Your task to perform on an android device: Search for flights from NYC to Buenos aires Image 0: 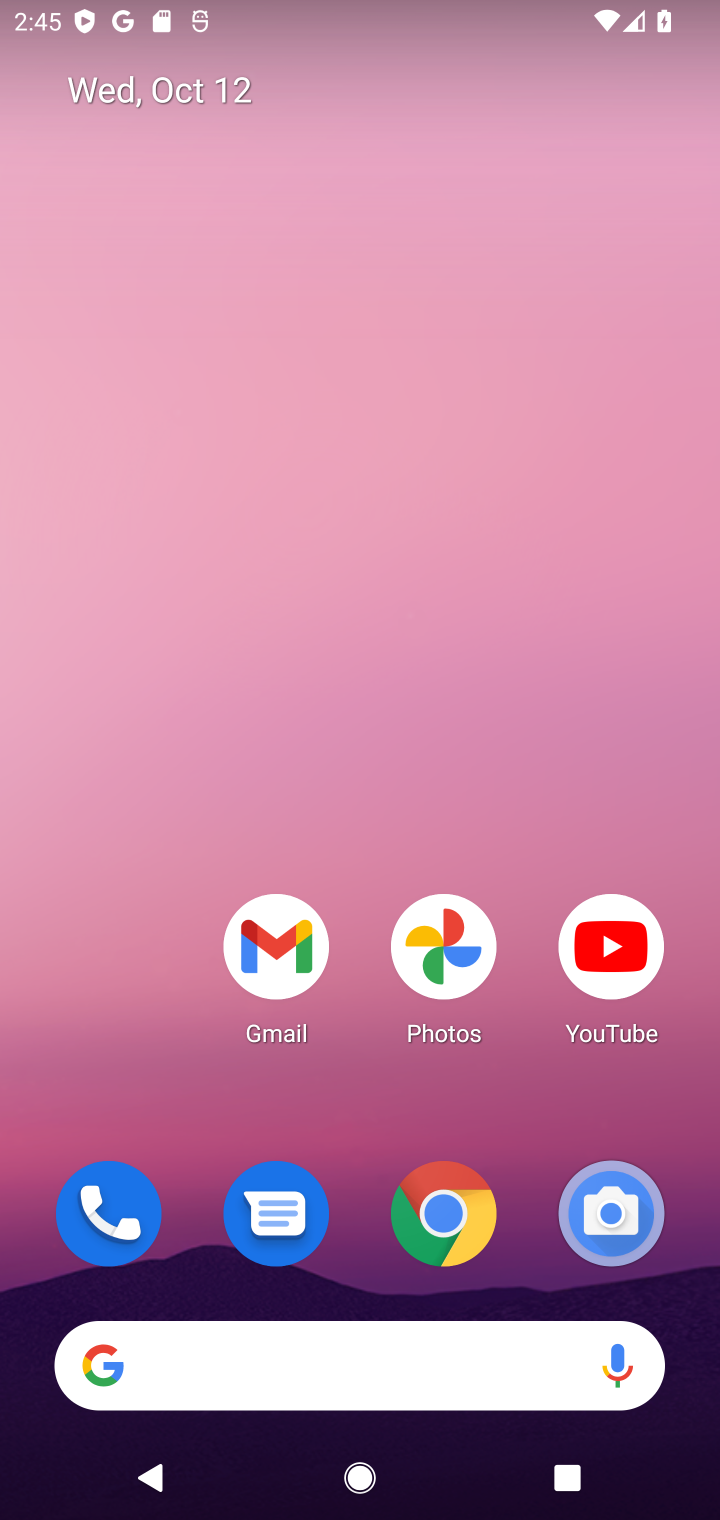
Step 0: click (176, 1377)
Your task to perform on an android device: Search for flights from NYC to Buenos aires Image 1: 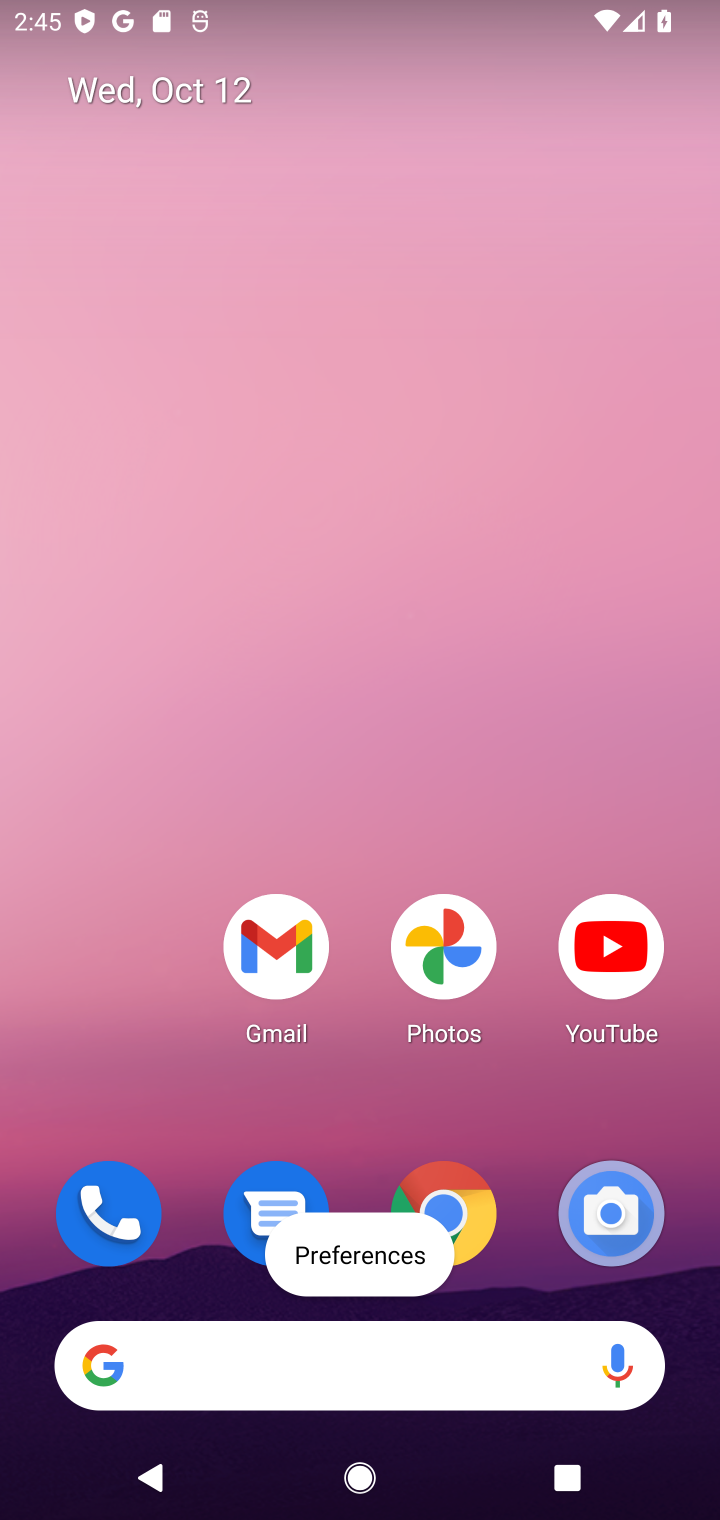
Step 1: click (192, 1387)
Your task to perform on an android device: Search for flights from NYC to Buenos aires Image 2: 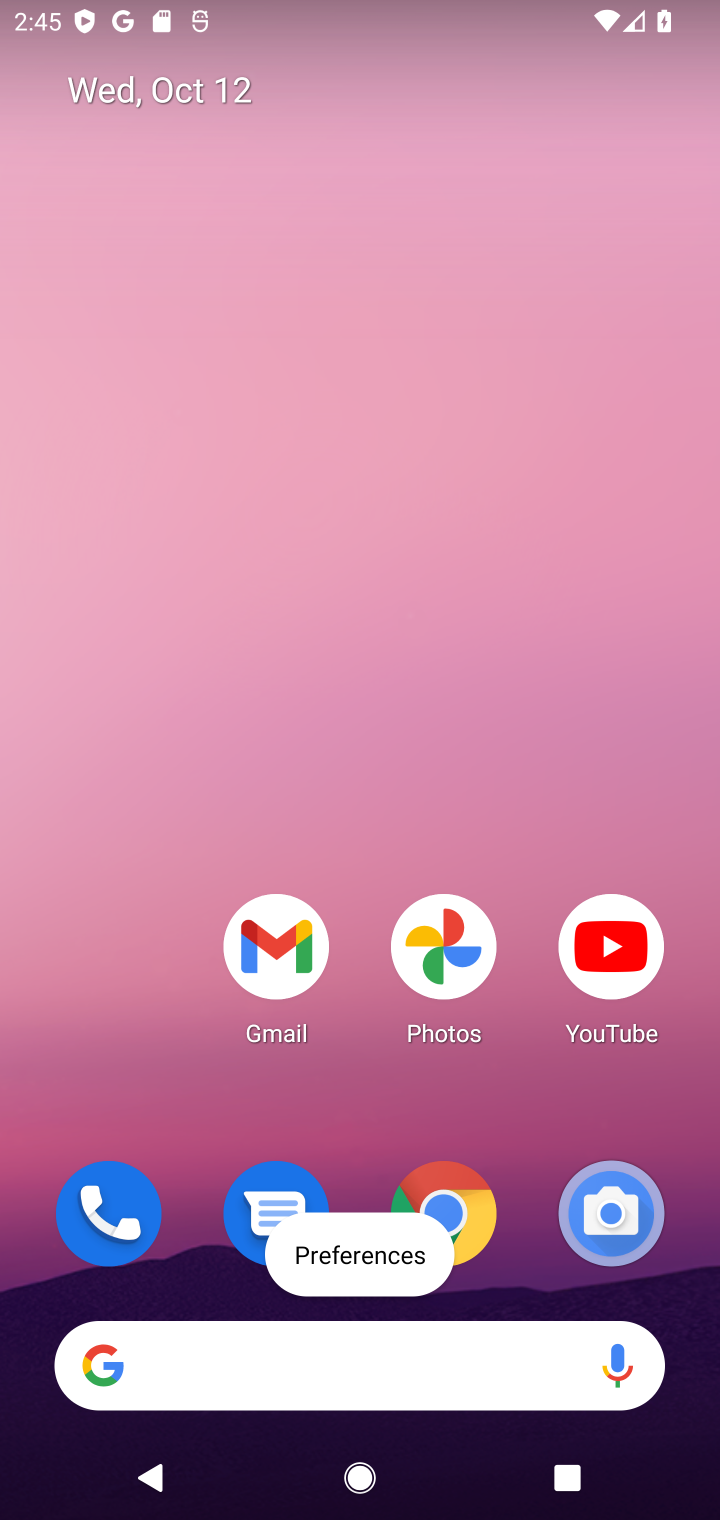
Step 2: click (269, 1348)
Your task to perform on an android device: Search for flights from NYC to Buenos aires Image 3: 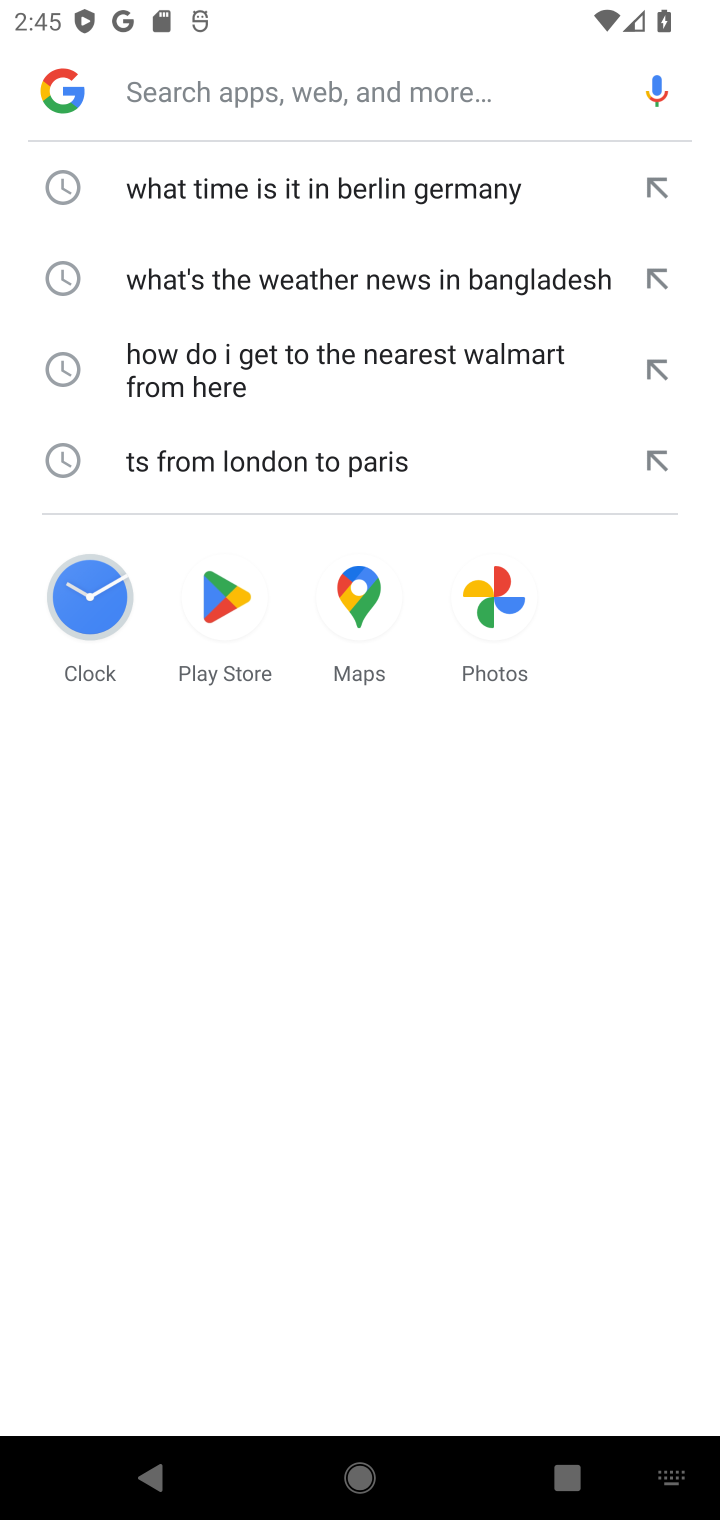
Step 3: click (211, 112)
Your task to perform on an android device: Search for flights from NYC to Buenos aires Image 4: 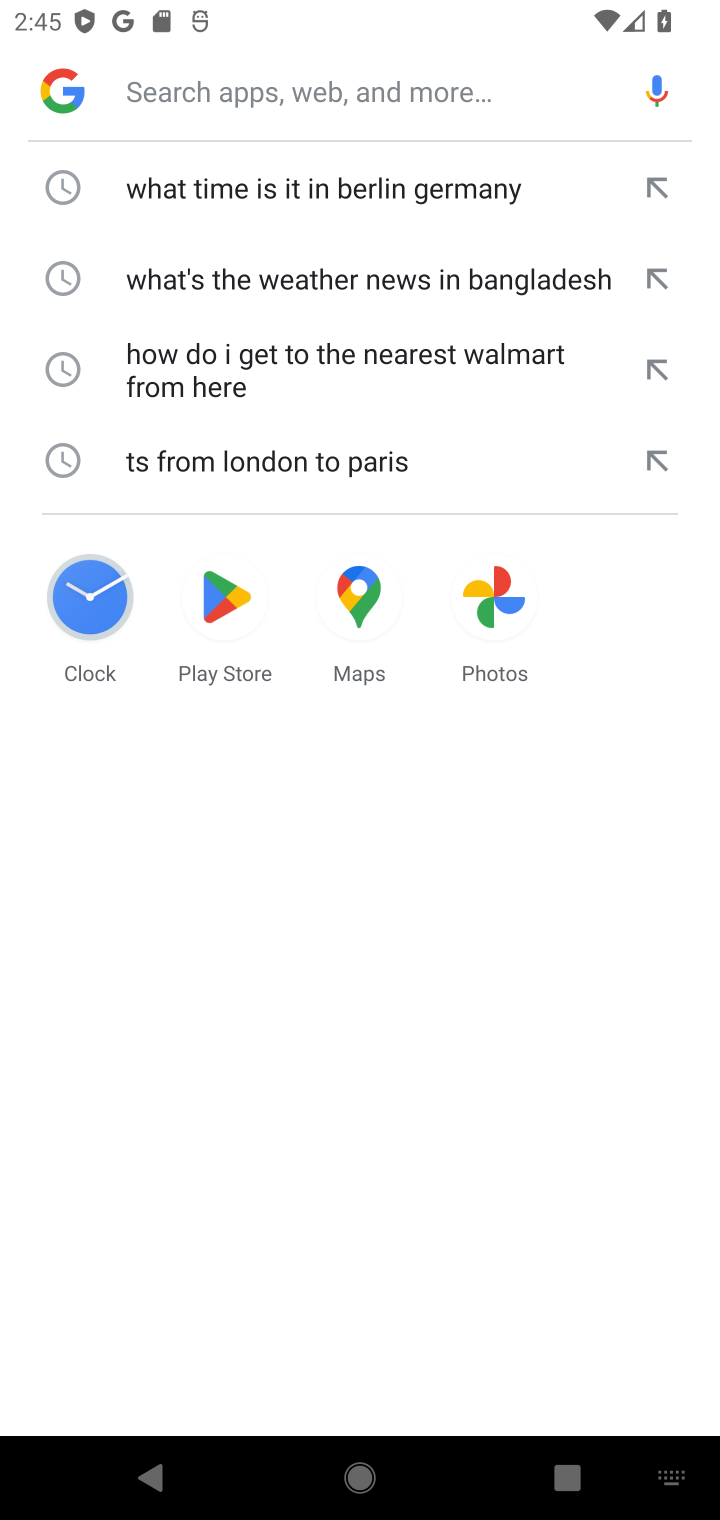
Step 4: type "flights from NYC to Buenos aires"
Your task to perform on an android device: Search for flights from NYC to Buenos aires Image 5: 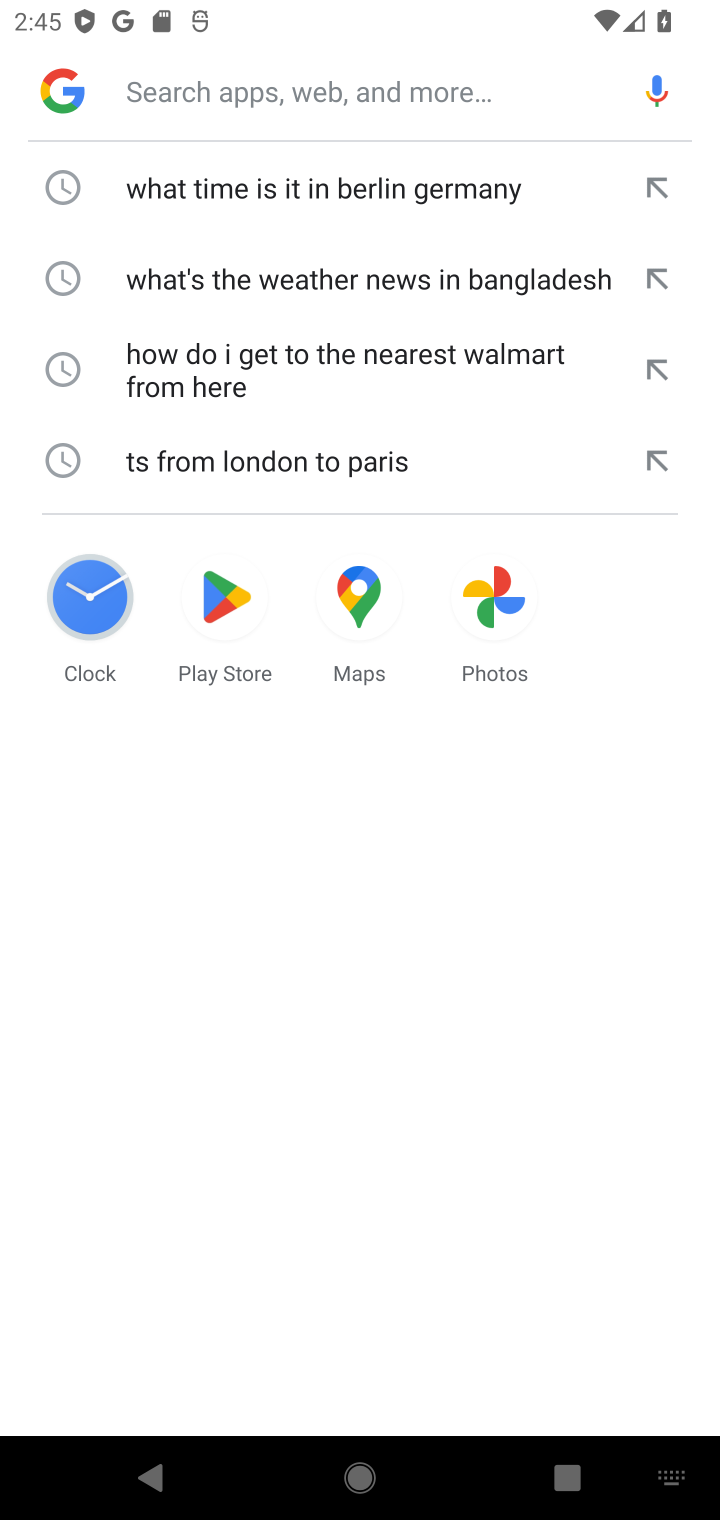
Step 5: click (356, 1065)
Your task to perform on an android device: Search for flights from NYC to Buenos aires Image 6: 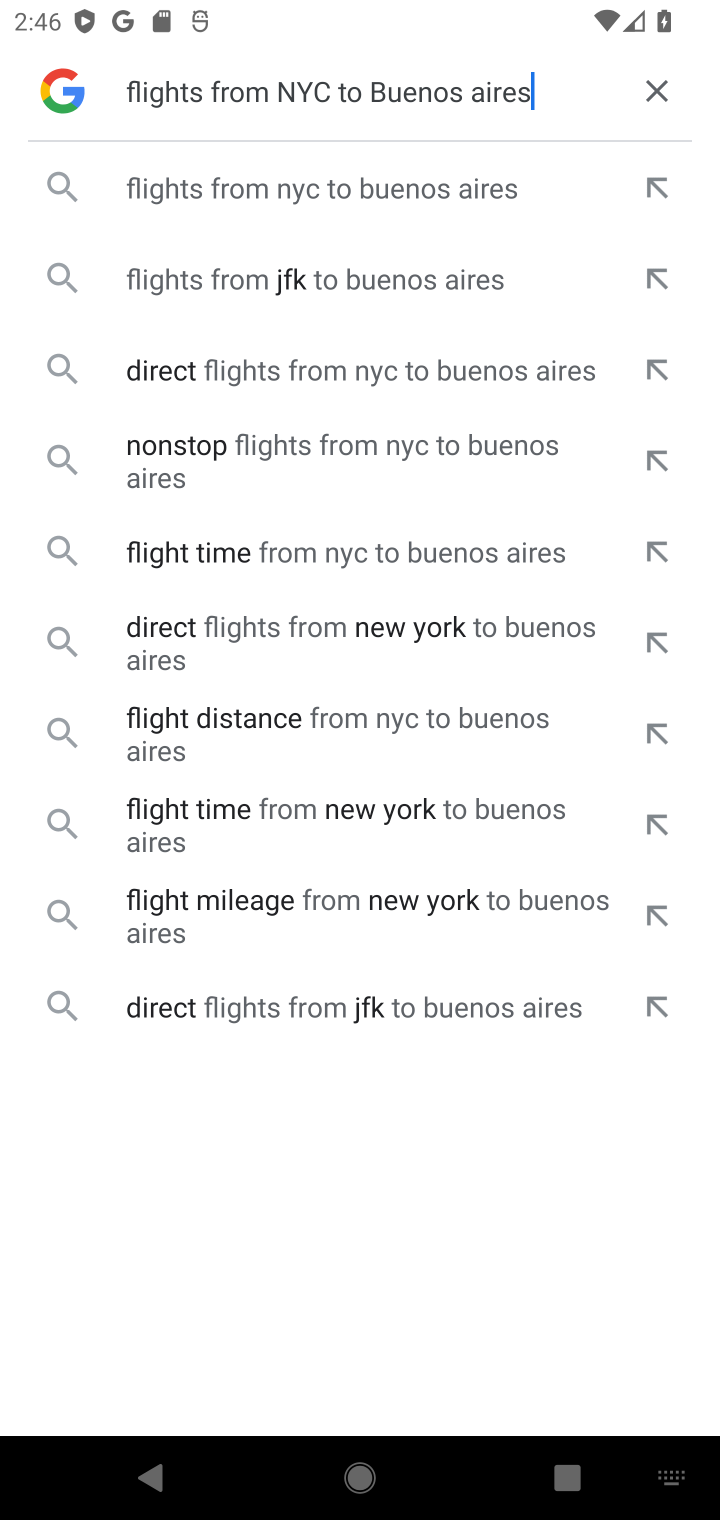
Step 6: click (278, 184)
Your task to perform on an android device: Search for flights from NYC to Buenos aires Image 7: 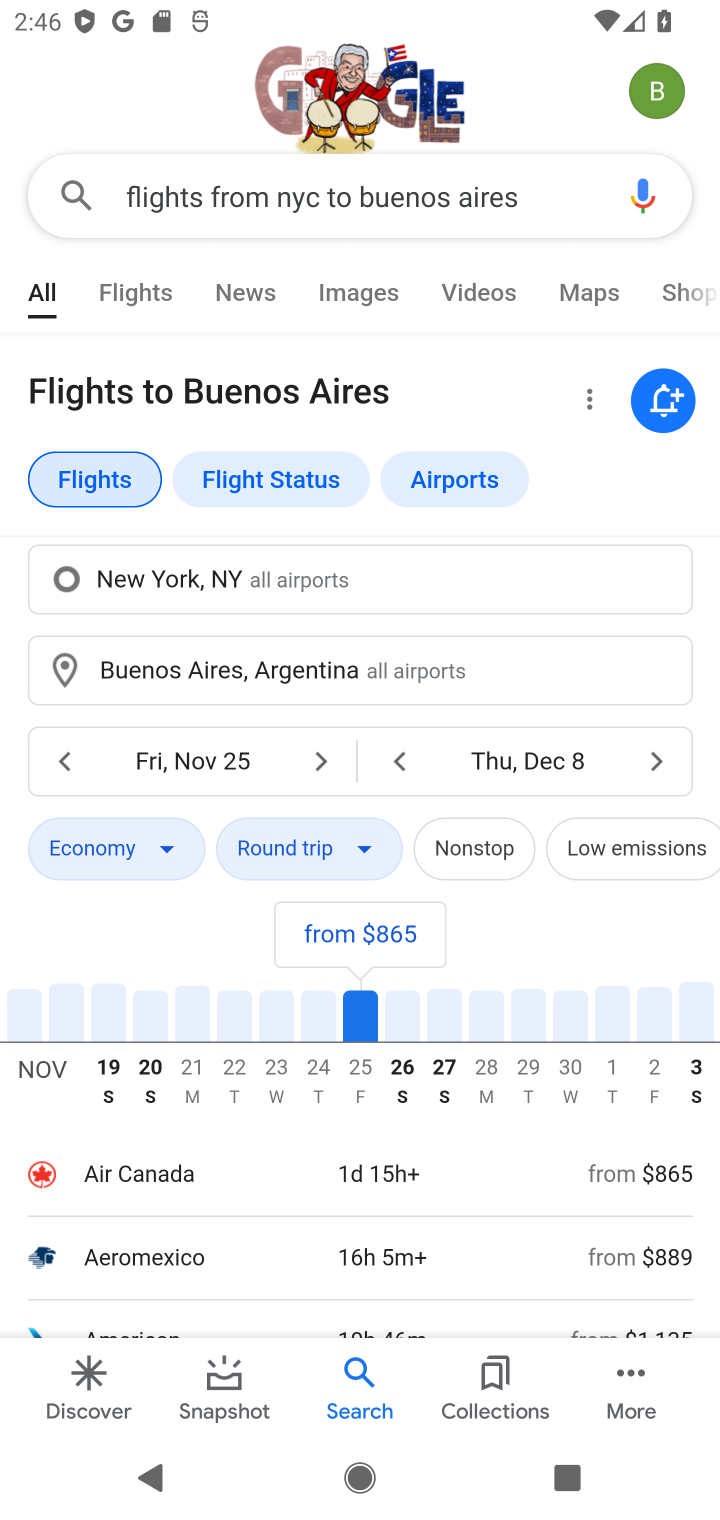
Step 7: task complete